Your task to perform on an android device: Go to Google Image 0: 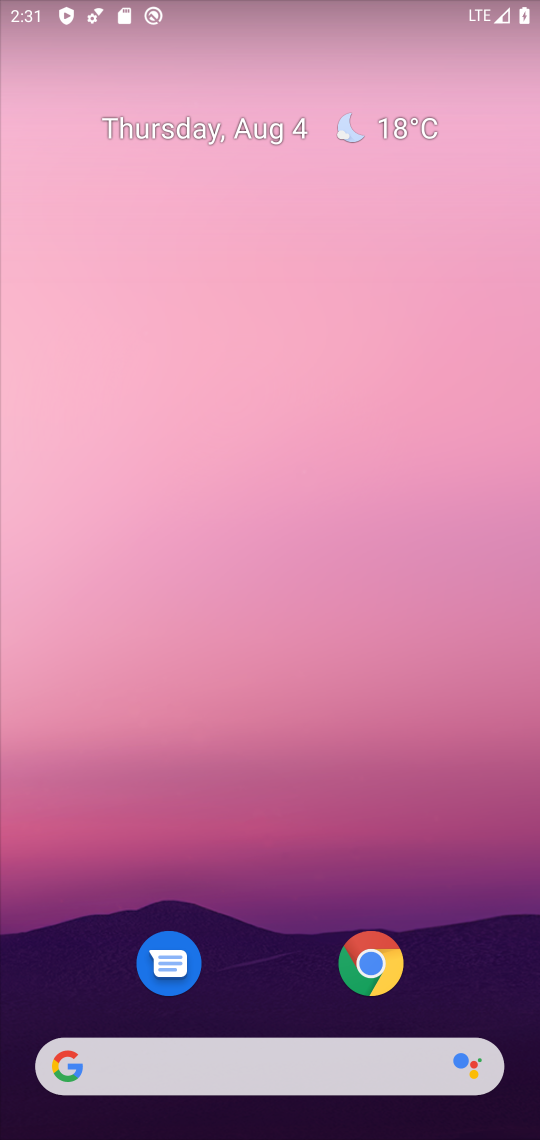
Step 0: drag from (254, 1054) to (317, 134)
Your task to perform on an android device: Go to Google Image 1: 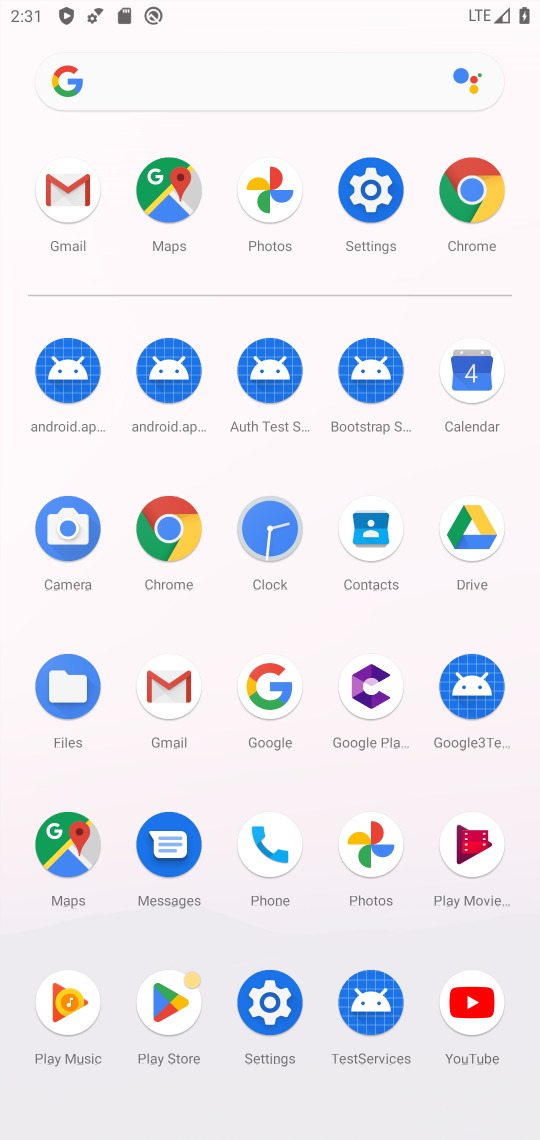
Step 1: click (266, 709)
Your task to perform on an android device: Go to Google Image 2: 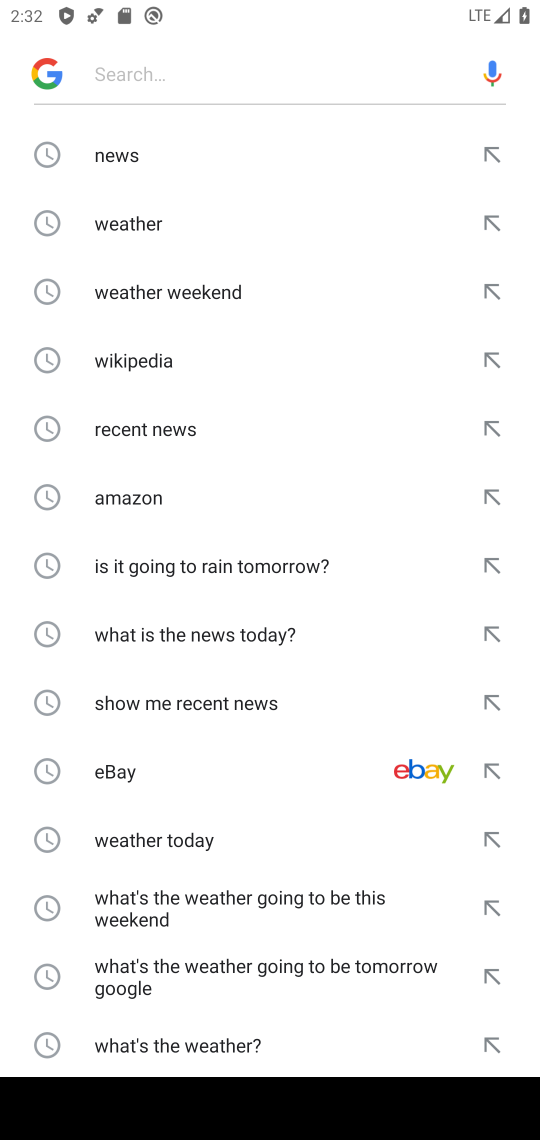
Step 2: task complete